Your task to perform on an android device: check out phone information Image 0: 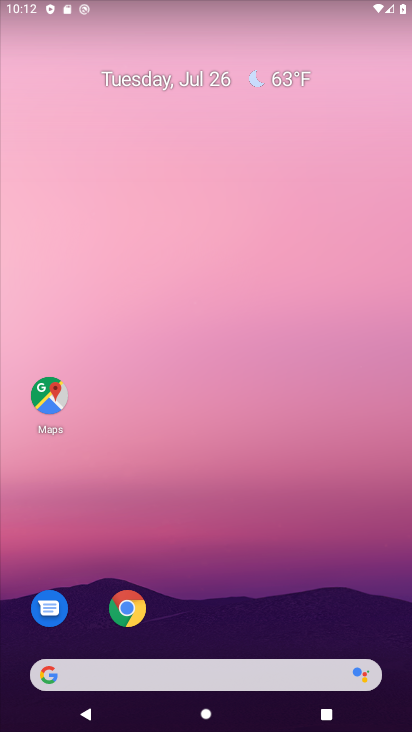
Step 0: drag from (235, 549) to (195, 179)
Your task to perform on an android device: check out phone information Image 1: 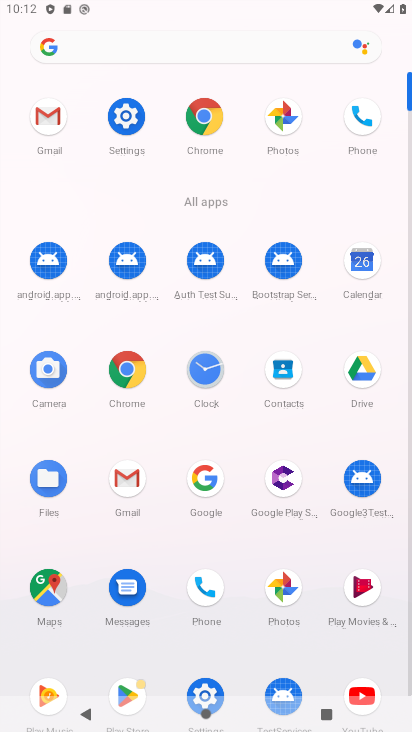
Step 1: click (129, 109)
Your task to perform on an android device: check out phone information Image 2: 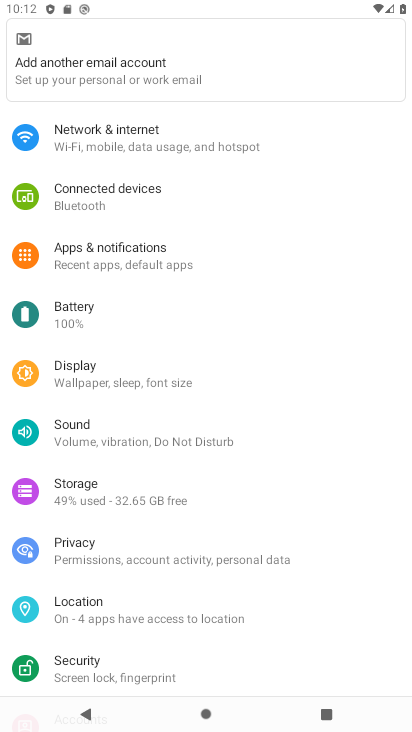
Step 2: drag from (134, 647) to (182, 185)
Your task to perform on an android device: check out phone information Image 3: 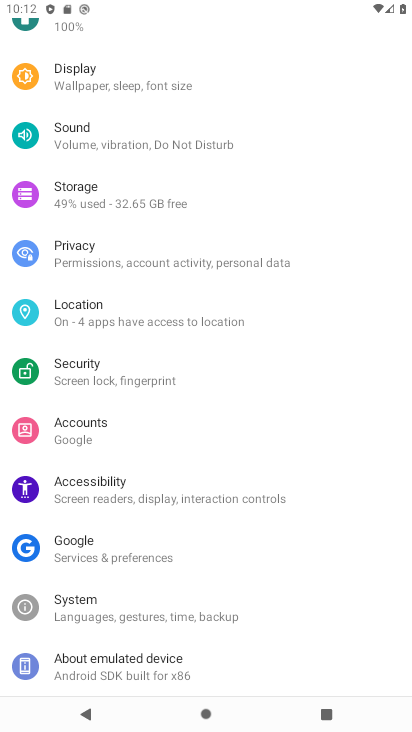
Step 3: click (126, 662)
Your task to perform on an android device: check out phone information Image 4: 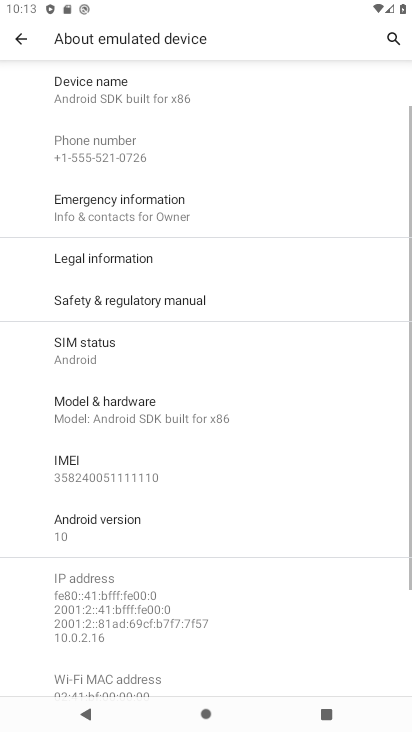
Step 4: task complete